Your task to perform on an android device: change the clock style Image 0: 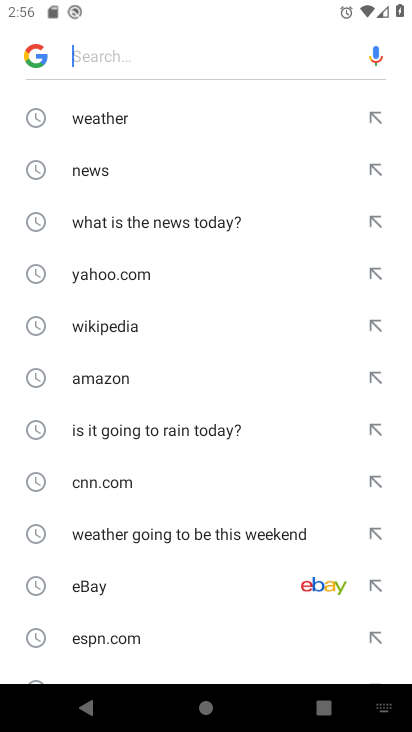
Step 0: press home button
Your task to perform on an android device: change the clock style Image 1: 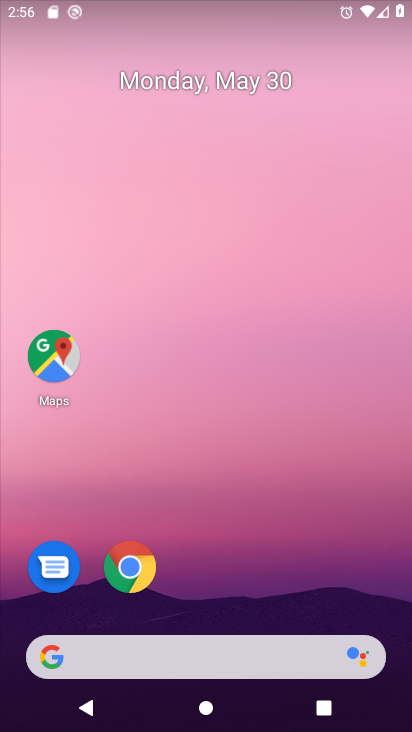
Step 1: drag from (239, 615) to (258, 222)
Your task to perform on an android device: change the clock style Image 2: 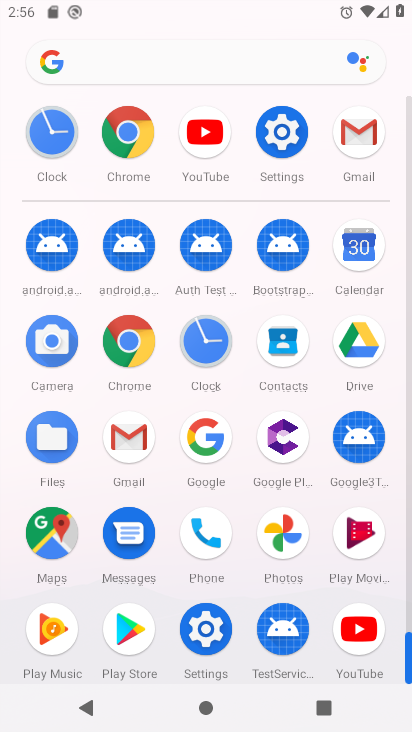
Step 2: click (209, 640)
Your task to perform on an android device: change the clock style Image 3: 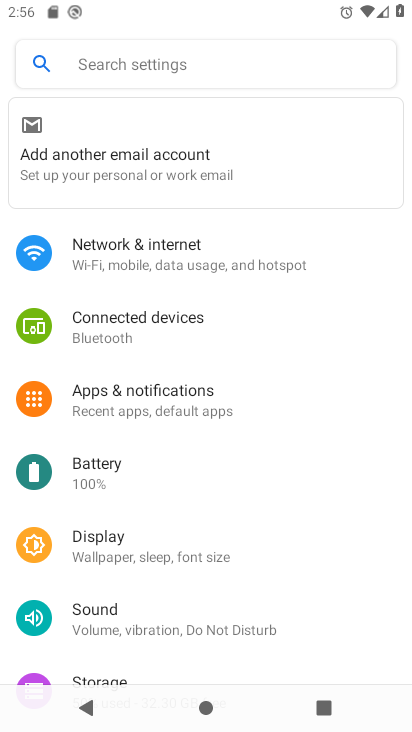
Step 3: press home button
Your task to perform on an android device: change the clock style Image 4: 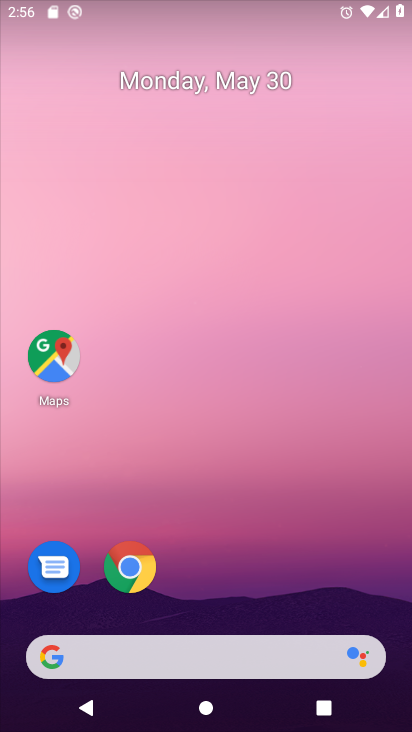
Step 4: drag from (203, 587) to (263, 106)
Your task to perform on an android device: change the clock style Image 5: 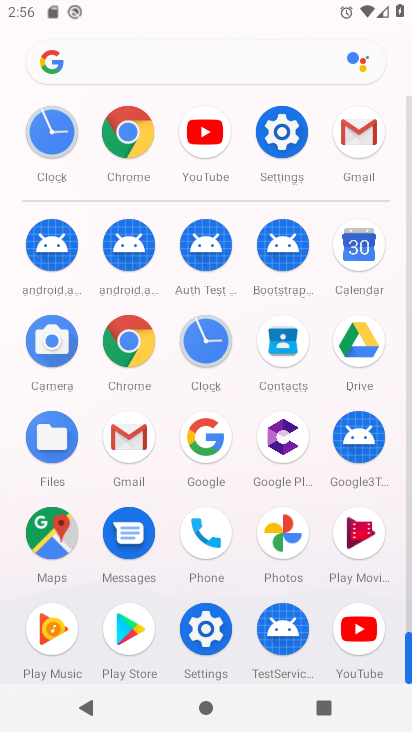
Step 5: click (208, 350)
Your task to perform on an android device: change the clock style Image 6: 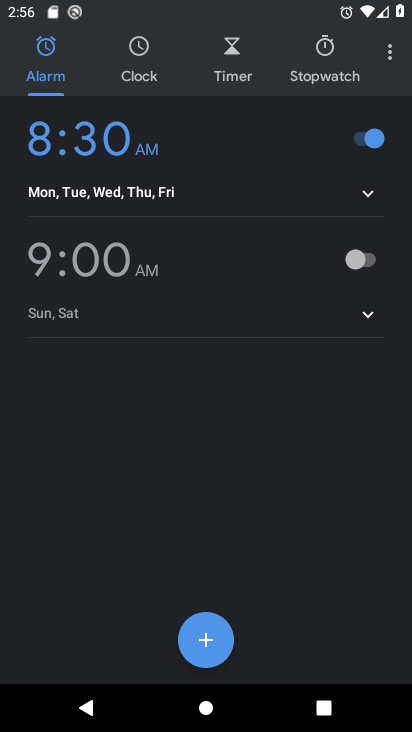
Step 6: click (384, 49)
Your task to perform on an android device: change the clock style Image 7: 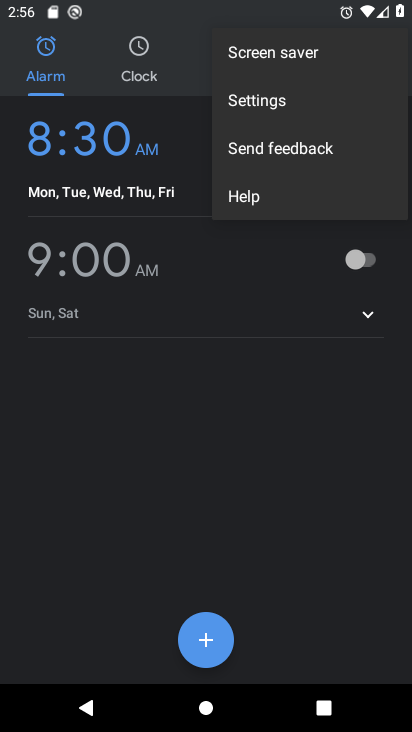
Step 7: click (283, 111)
Your task to perform on an android device: change the clock style Image 8: 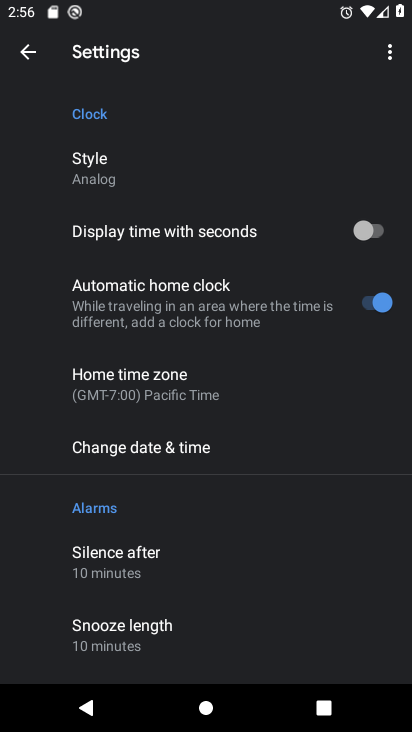
Step 8: click (137, 167)
Your task to perform on an android device: change the clock style Image 9: 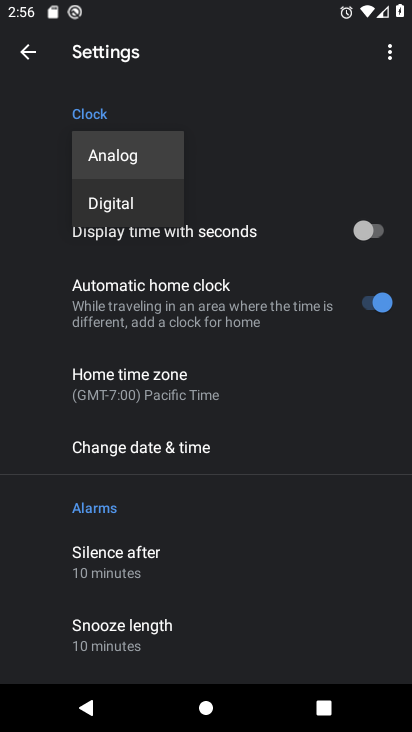
Step 9: click (161, 199)
Your task to perform on an android device: change the clock style Image 10: 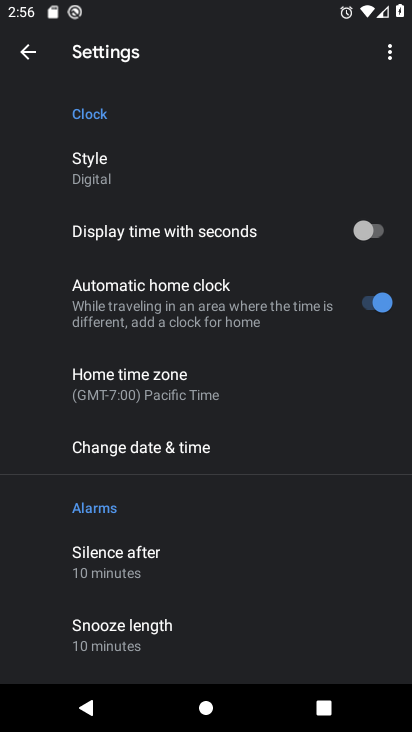
Step 10: task complete